Your task to perform on an android device: turn vacation reply on in the gmail app Image 0: 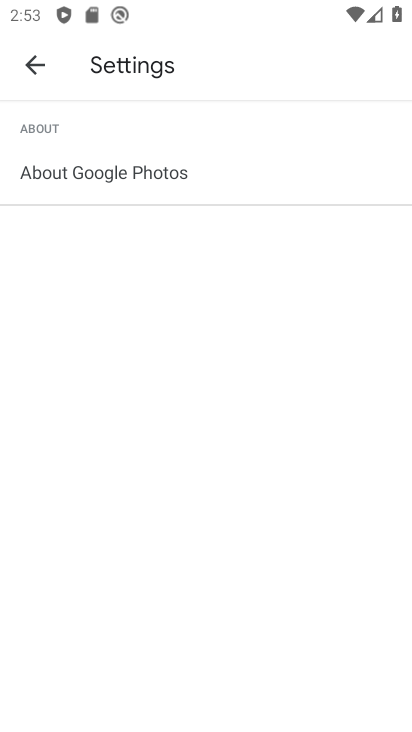
Step 0: press home button
Your task to perform on an android device: turn vacation reply on in the gmail app Image 1: 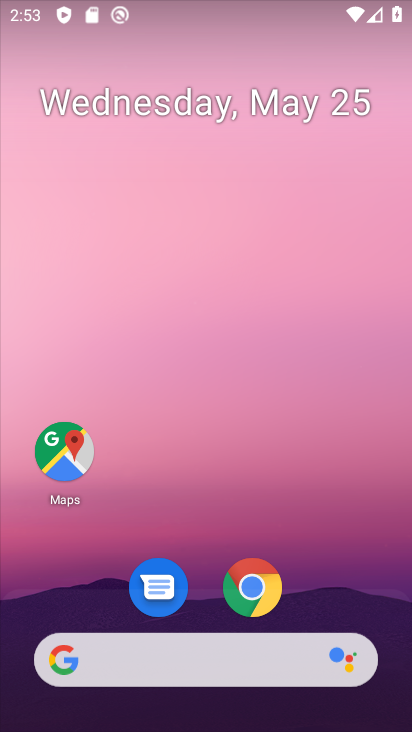
Step 1: drag from (334, 585) to (292, 212)
Your task to perform on an android device: turn vacation reply on in the gmail app Image 2: 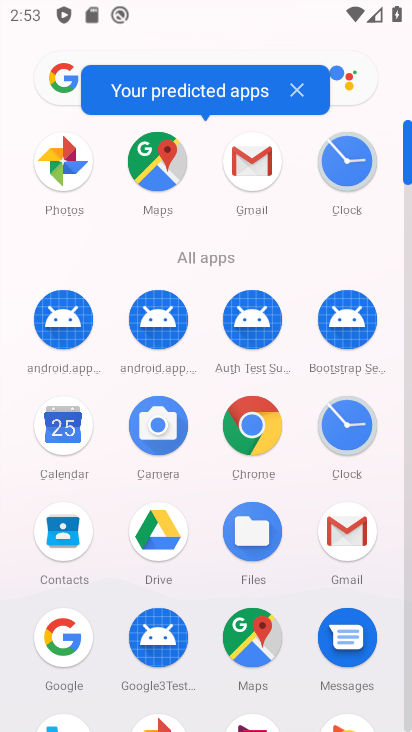
Step 2: click (262, 166)
Your task to perform on an android device: turn vacation reply on in the gmail app Image 3: 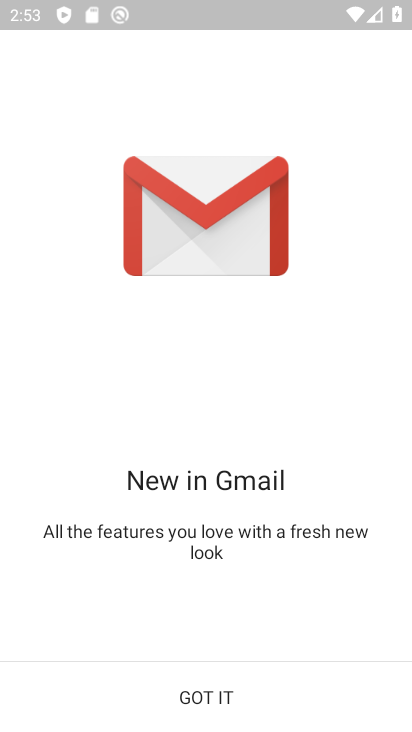
Step 3: click (199, 701)
Your task to perform on an android device: turn vacation reply on in the gmail app Image 4: 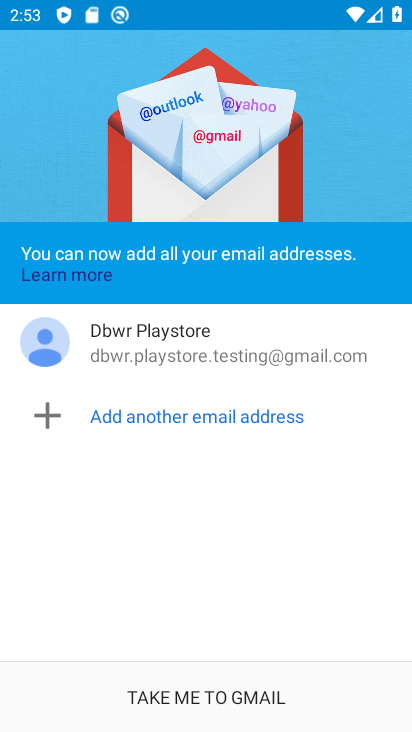
Step 4: click (199, 701)
Your task to perform on an android device: turn vacation reply on in the gmail app Image 5: 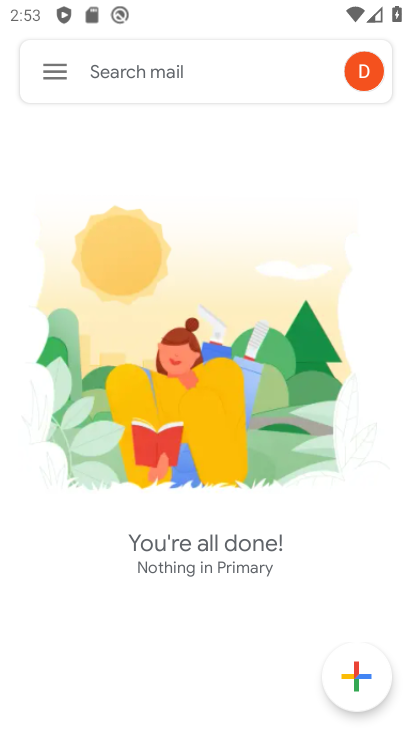
Step 5: click (60, 71)
Your task to perform on an android device: turn vacation reply on in the gmail app Image 6: 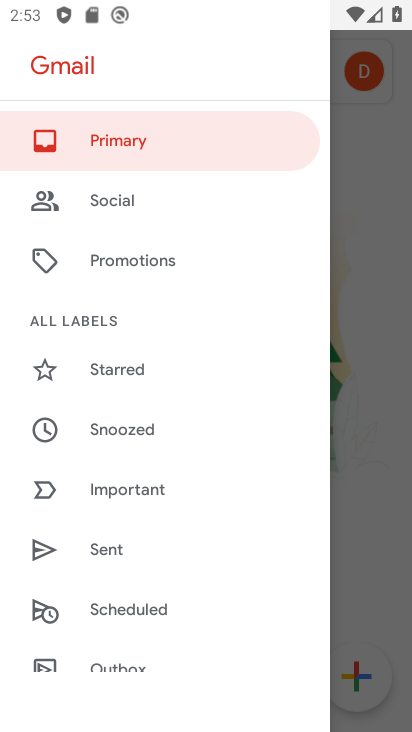
Step 6: drag from (175, 653) to (143, 152)
Your task to perform on an android device: turn vacation reply on in the gmail app Image 7: 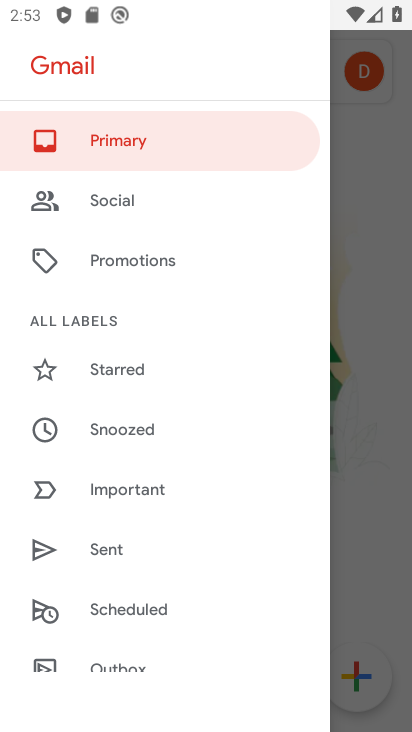
Step 7: drag from (109, 634) to (84, 104)
Your task to perform on an android device: turn vacation reply on in the gmail app Image 8: 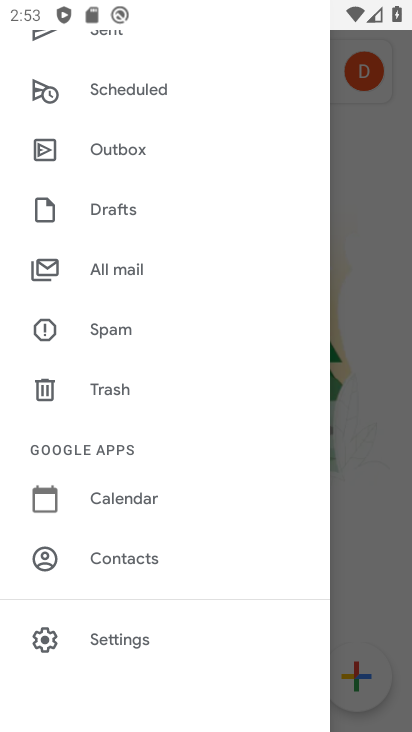
Step 8: click (123, 626)
Your task to perform on an android device: turn vacation reply on in the gmail app Image 9: 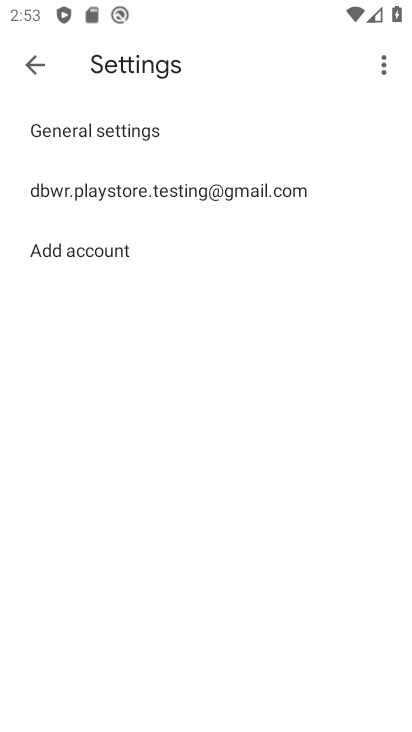
Step 9: click (146, 204)
Your task to perform on an android device: turn vacation reply on in the gmail app Image 10: 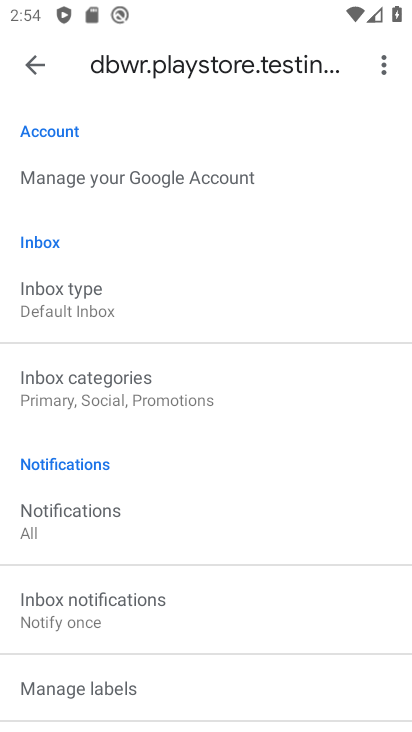
Step 10: drag from (172, 665) to (129, 135)
Your task to perform on an android device: turn vacation reply on in the gmail app Image 11: 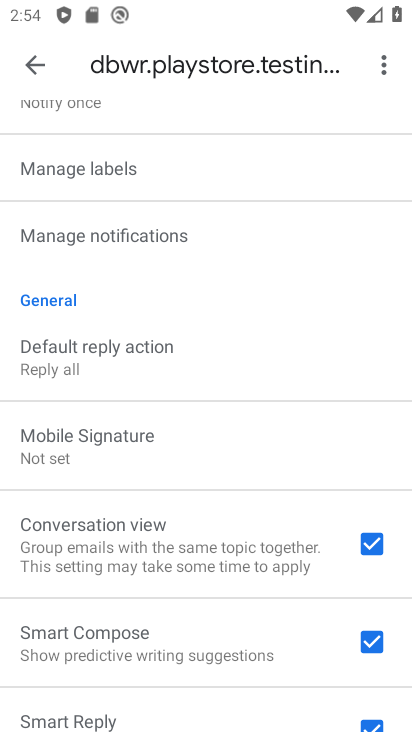
Step 11: drag from (115, 680) to (115, 116)
Your task to perform on an android device: turn vacation reply on in the gmail app Image 12: 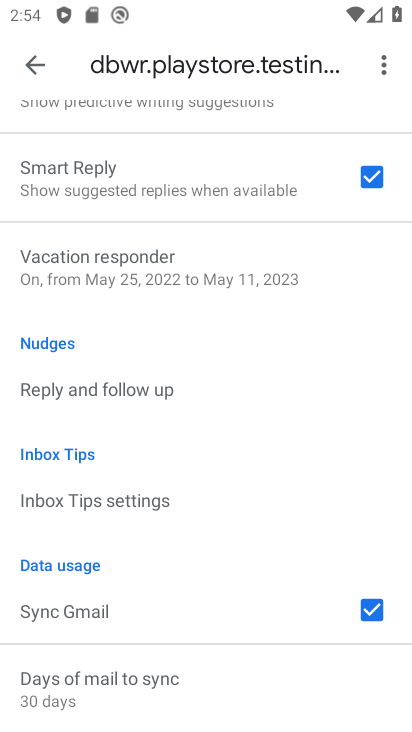
Step 12: click (126, 277)
Your task to perform on an android device: turn vacation reply on in the gmail app Image 13: 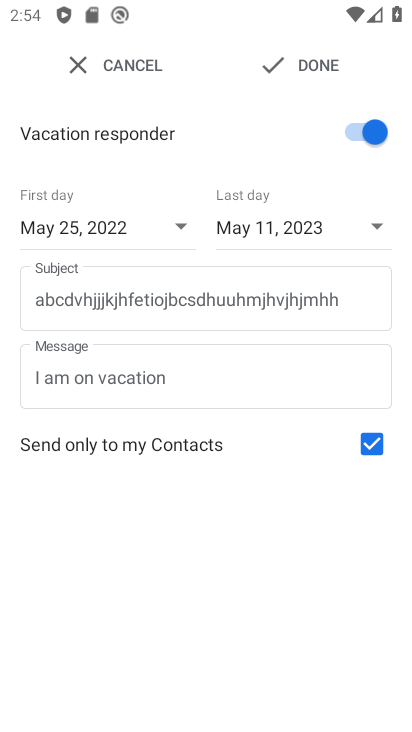
Step 13: click (312, 68)
Your task to perform on an android device: turn vacation reply on in the gmail app Image 14: 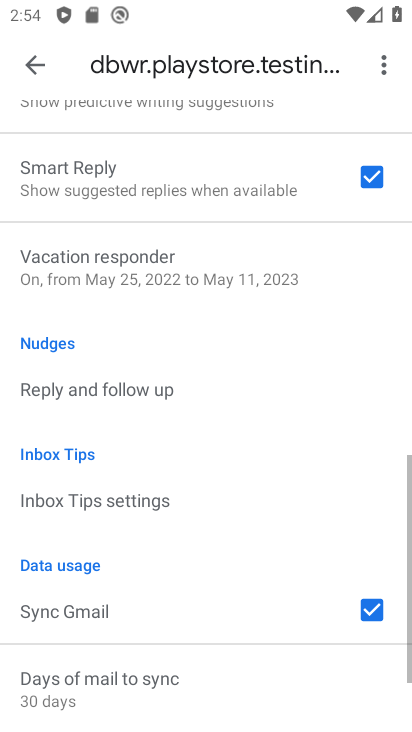
Step 14: task complete